Your task to perform on an android device: Turn off the flashlight Image 0: 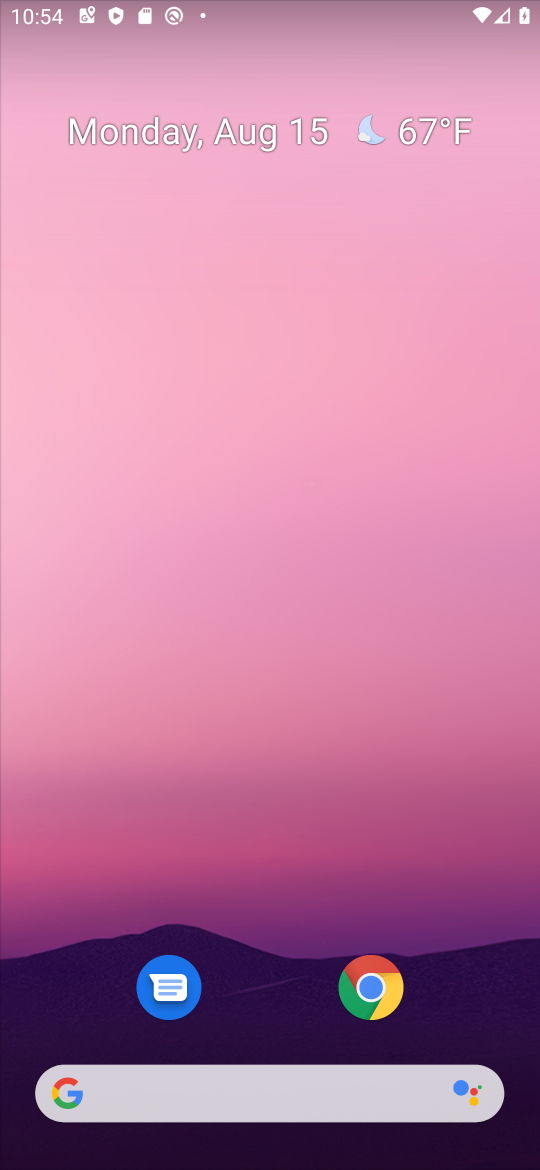
Step 0: drag from (248, 1071) to (190, 201)
Your task to perform on an android device: Turn off the flashlight Image 1: 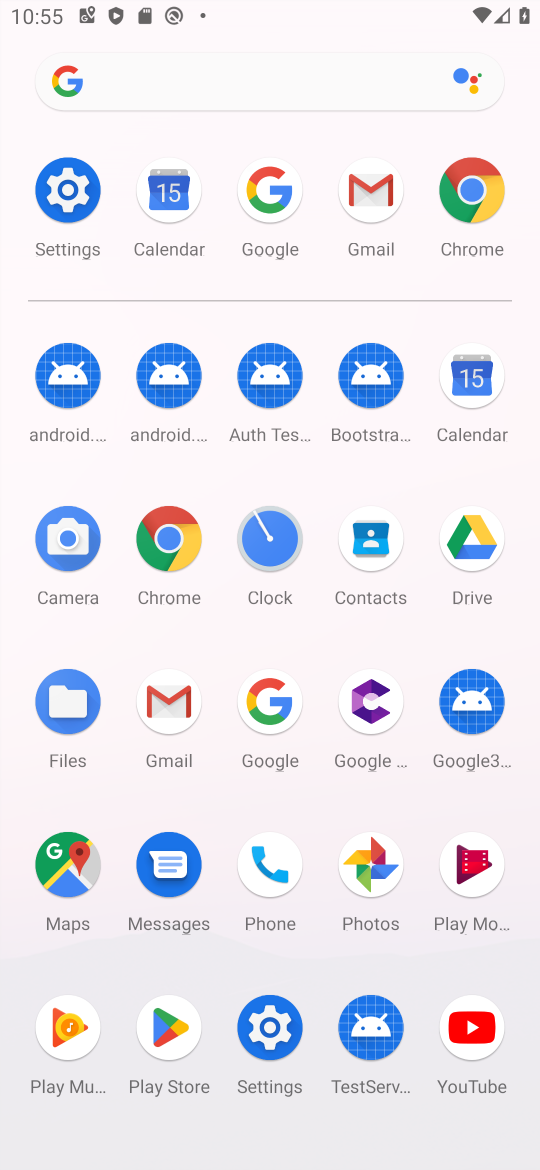
Step 1: click (248, 1035)
Your task to perform on an android device: Turn off the flashlight Image 2: 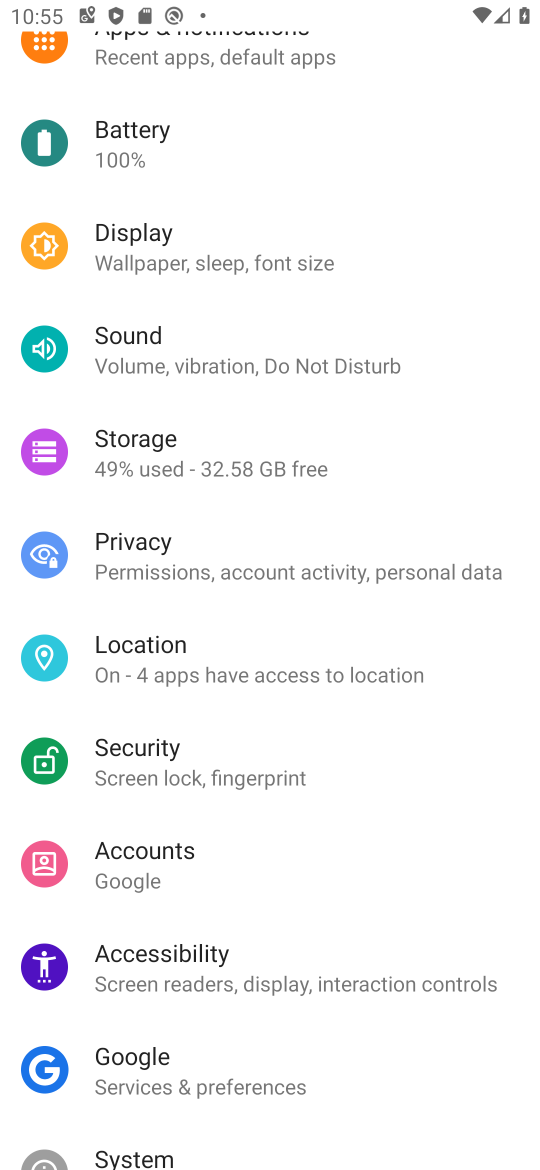
Step 2: task complete